Your task to perform on an android device: Go to privacy settings Image 0: 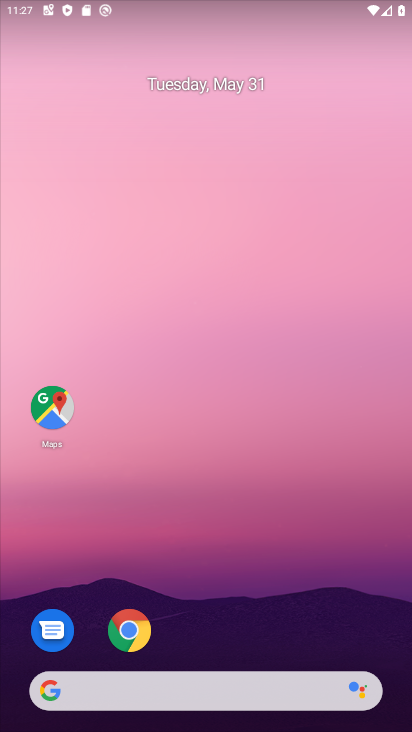
Step 0: drag from (267, 601) to (237, 185)
Your task to perform on an android device: Go to privacy settings Image 1: 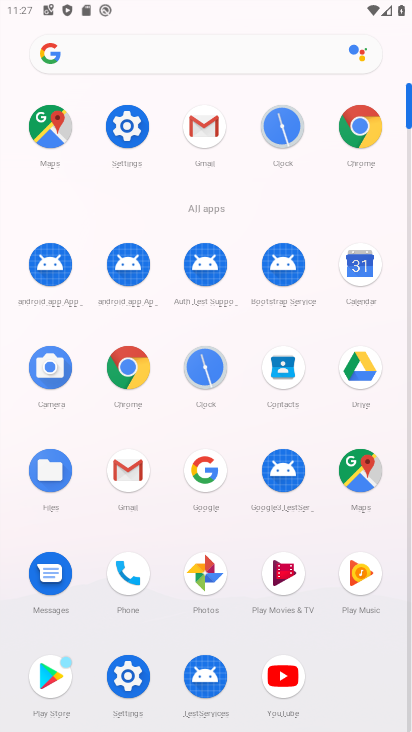
Step 1: click (116, 135)
Your task to perform on an android device: Go to privacy settings Image 2: 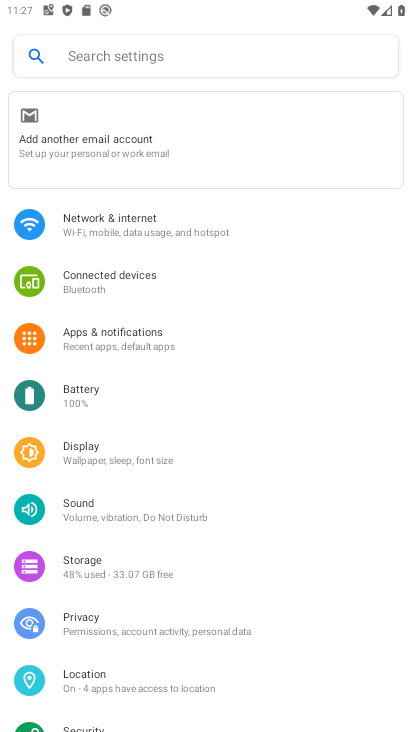
Step 2: click (110, 617)
Your task to perform on an android device: Go to privacy settings Image 3: 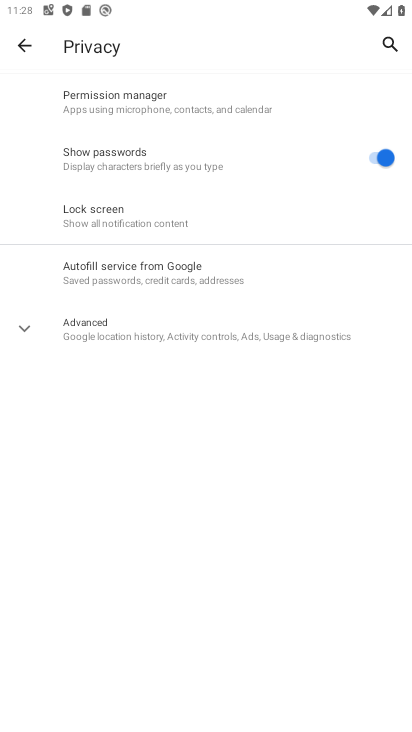
Step 3: task complete